Your task to perform on an android device: check storage Image 0: 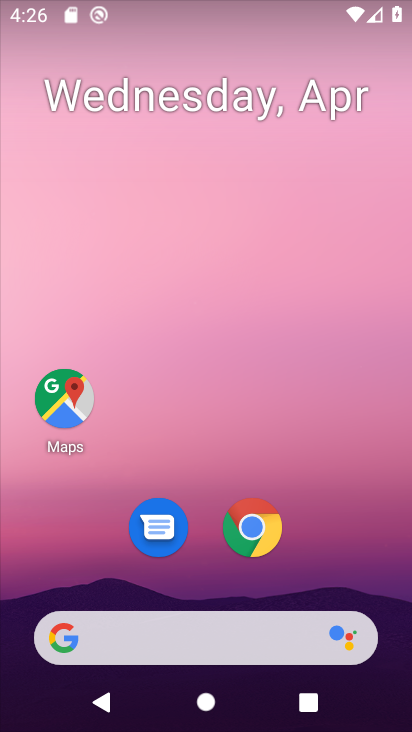
Step 0: drag from (389, 498) to (411, 170)
Your task to perform on an android device: check storage Image 1: 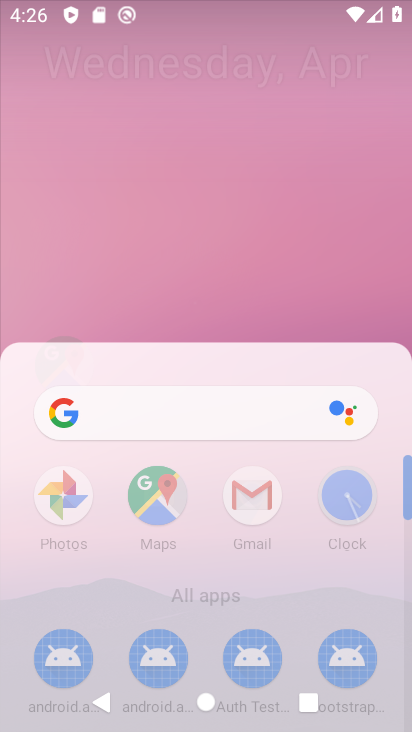
Step 1: click (364, 239)
Your task to perform on an android device: check storage Image 2: 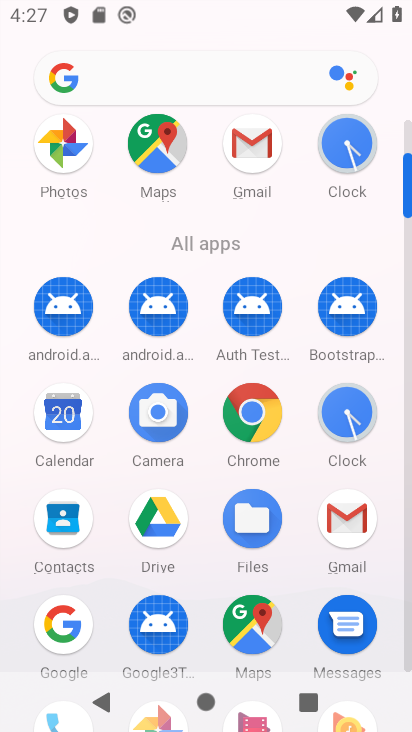
Step 2: drag from (406, 549) to (402, 492)
Your task to perform on an android device: check storage Image 3: 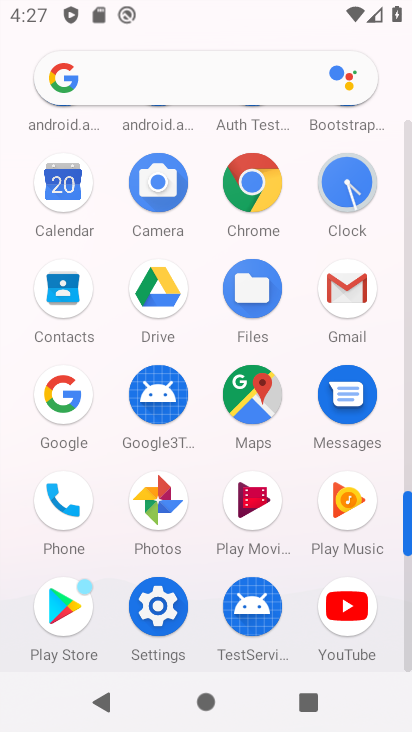
Step 3: click (150, 614)
Your task to perform on an android device: check storage Image 4: 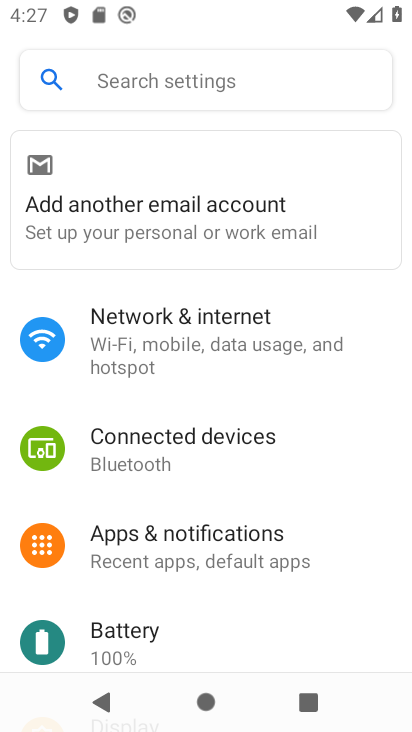
Step 4: drag from (223, 610) to (175, 167)
Your task to perform on an android device: check storage Image 5: 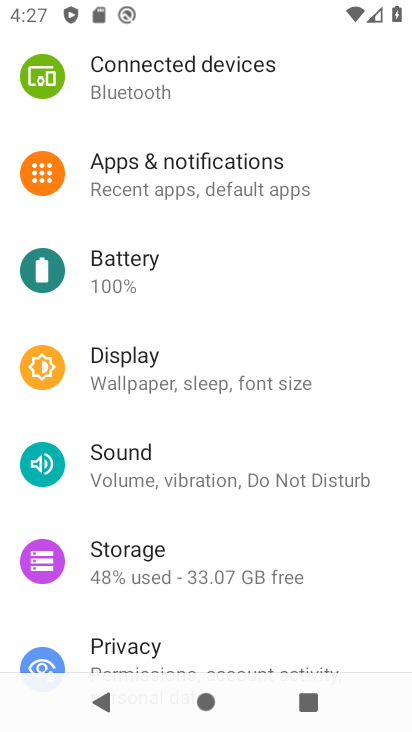
Step 5: click (136, 564)
Your task to perform on an android device: check storage Image 6: 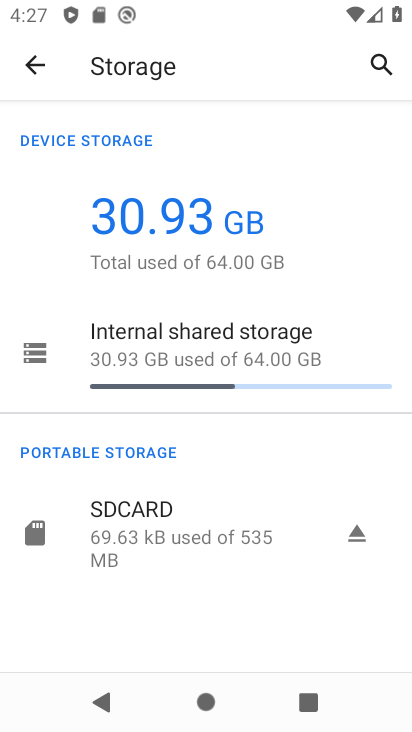
Step 6: click (153, 374)
Your task to perform on an android device: check storage Image 7: 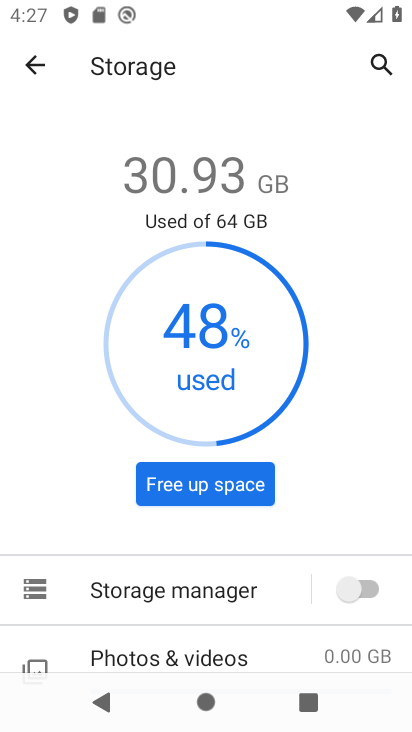
Step 7: task complete